Your task to perform on an android device: Open wifi settings Image 0: 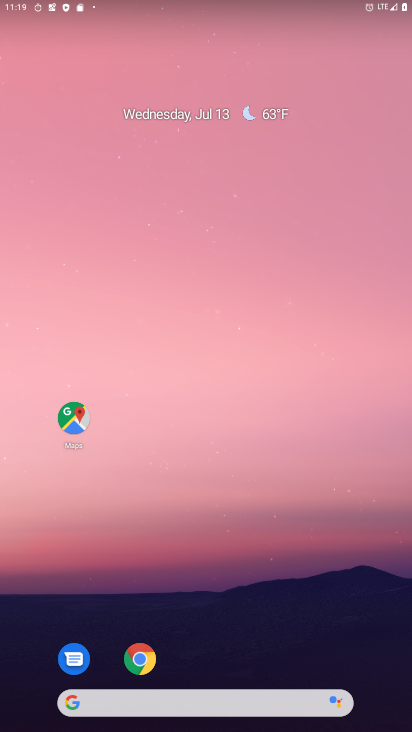
Step 0: drag from (263, 505) to (268, 211)
Your task to perform on an android device: Open wifi settings Image 1: 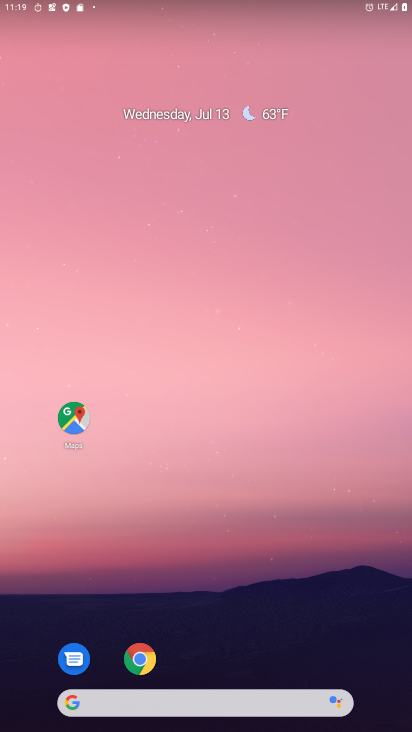
Step 1: drag from (279, 608) to (260, 85)
Your task to perform on an android device: Open wifi settings Image 2: 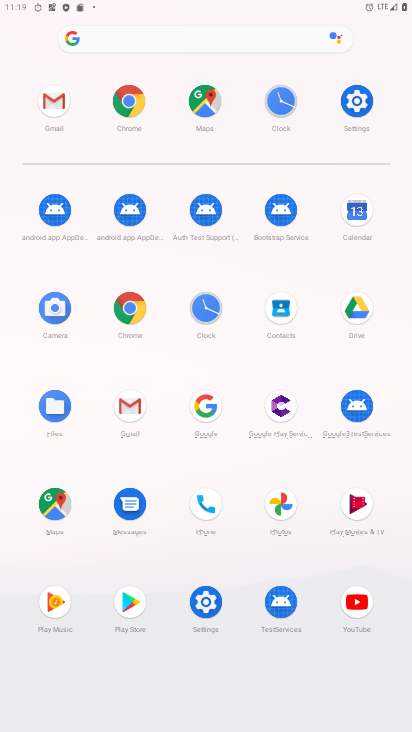
Step 2: click (363, 99)
Your task to perform on an android device: Open wifi settings Image 3: 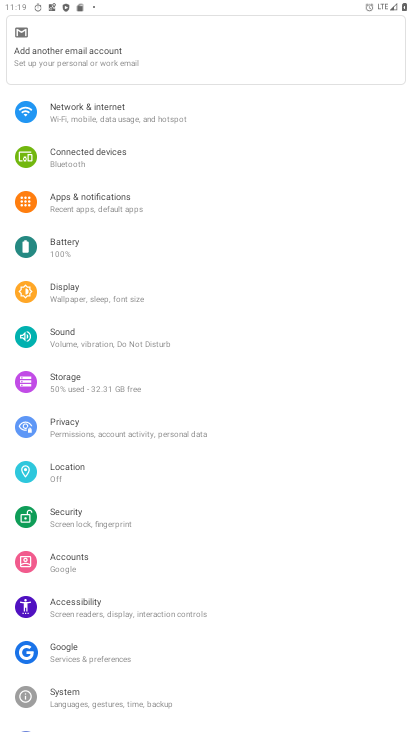
Step 3: click (88, 109)
Your task to perform on an android device: Open wifi settings Image 4: 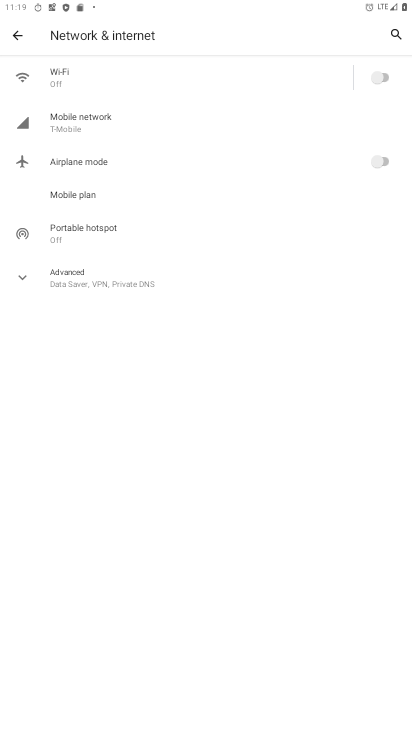
Step 4: click (105, 84)
Your task to perform on an android device: Open wifi settings Image 5: 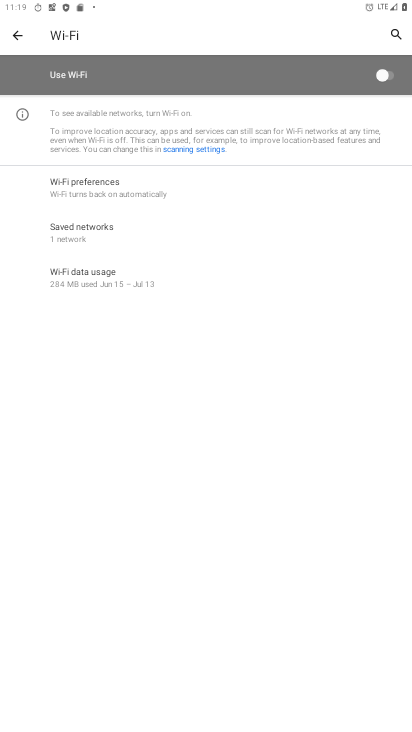
Step 5: click (369, 71)
Your task to perform on an android device: Open wifi settings Image 6: 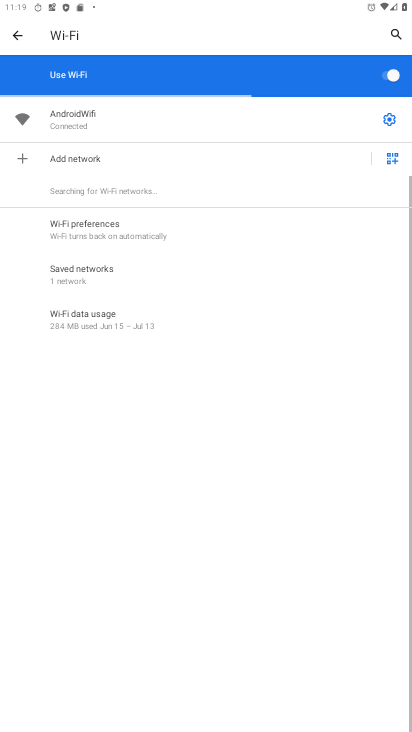
Step 6: click (392, 123)
Your task to perform on an android device: Open wifi settings Image 7: 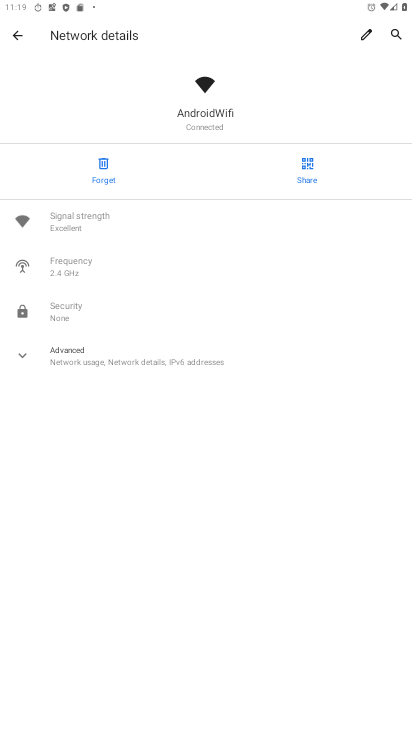
Step 7: task complete